Your task to perform on an android device: Open CNN.com Image 0: 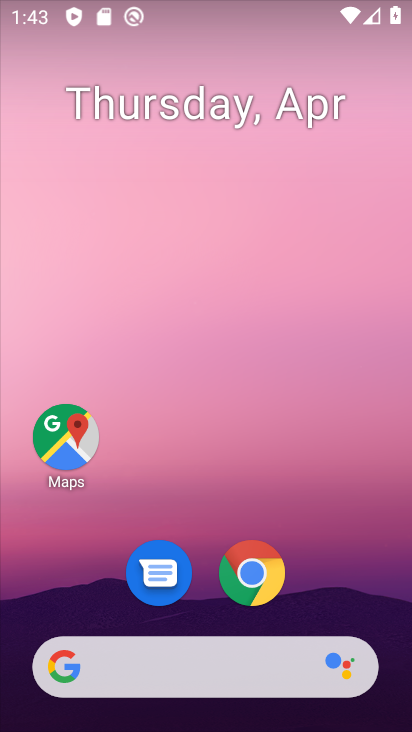
Step 0: drag from (365, 599) to (237, 16)
Your task to perform on an android device: Open CNN.com Image 1: 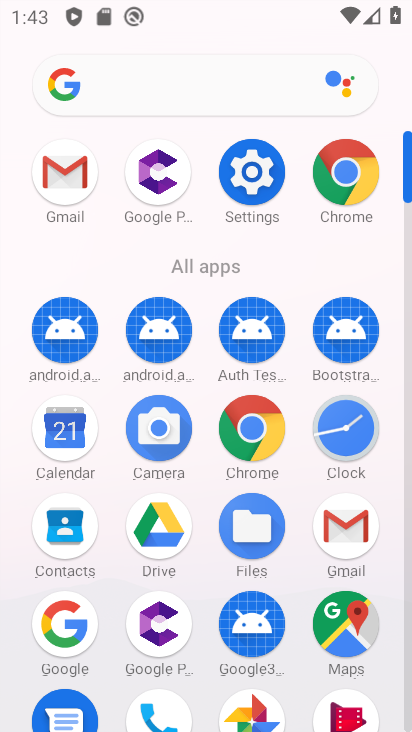
Step 1: click (356, 174)
Your task to perform on an android device: Open CNN.com Image 2: 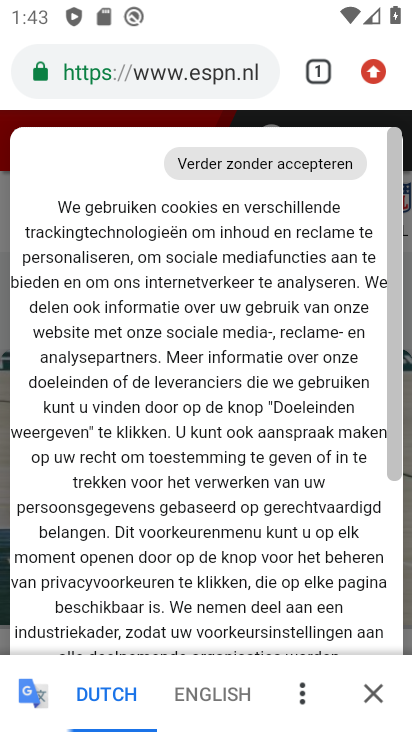
Step 2: press back button
Your task to perform on an android device: Open CNN.com Image 3: 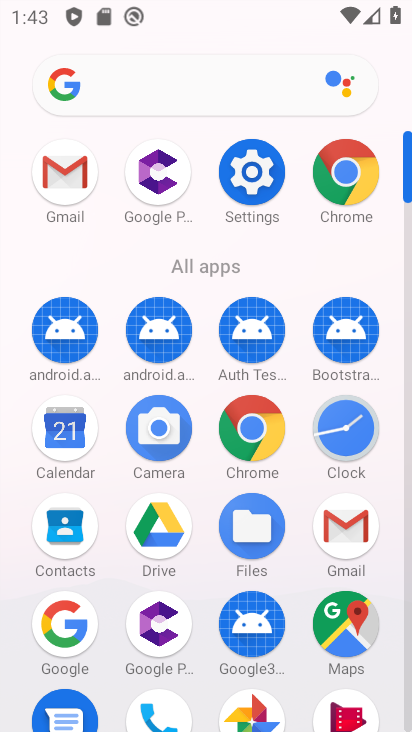
Step 3: click (339, 185)
Your task to perform on an android device: Open CNN.com Image 4: 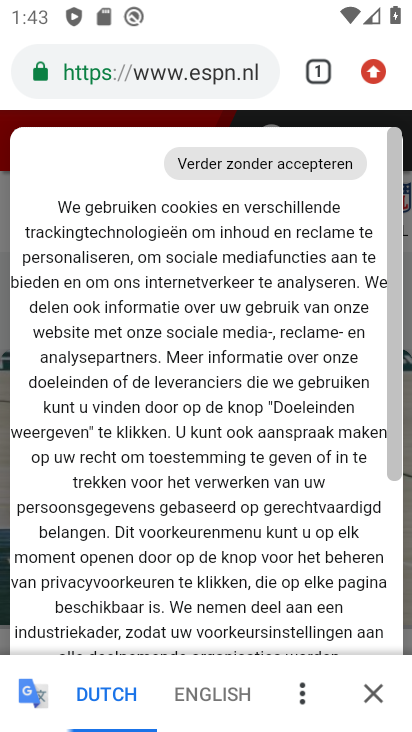
Step 4: press back button
Your task to perform on an android device: Open CNN.com Image 5: 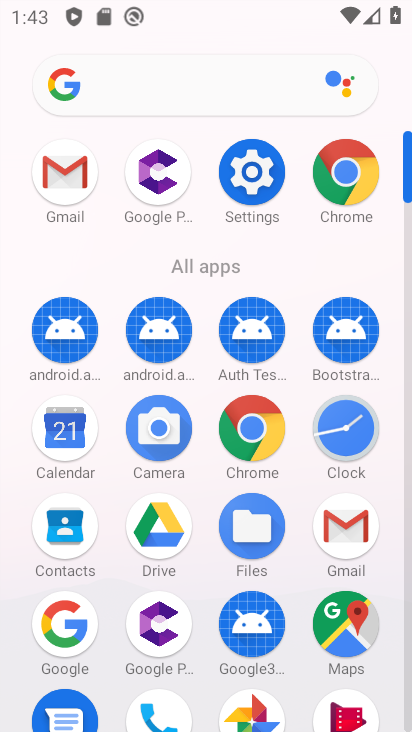
Step 5: click (325, 182)
Your task to perform on an android device: Open CNN.com Image 6: 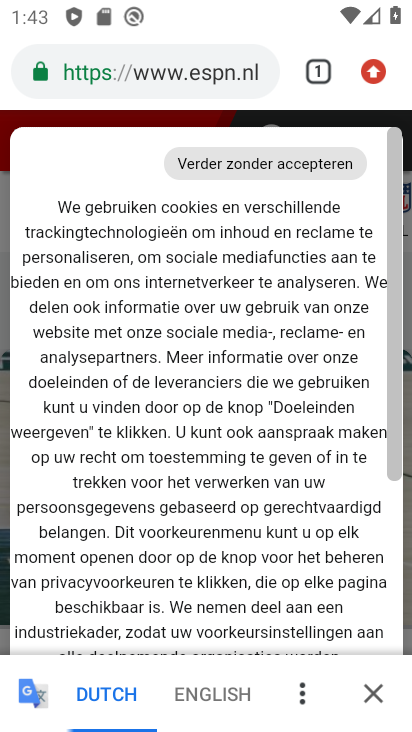
Step 6: click (312, 79)
Your task to perform on an android device: Open CNN.com Image 7: 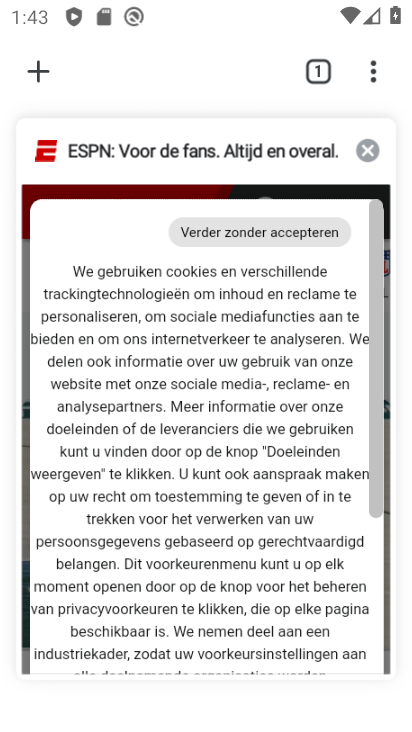
Step 7: click (369, 146)
Your task to perform on an android device: Open CNN.com Image 8: 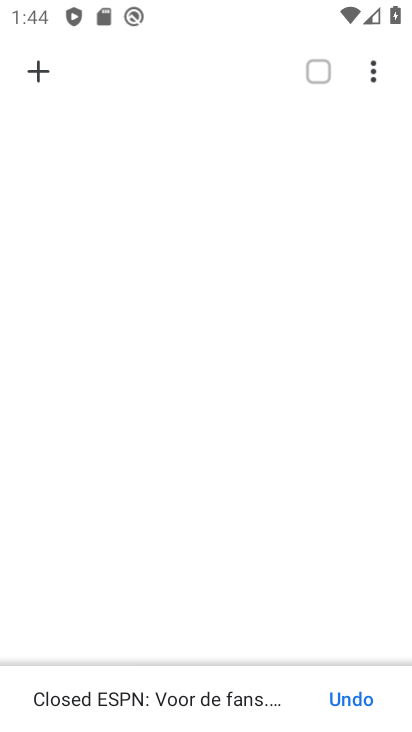
Step 8: click (31, 70)
Your task to perform on an android device: Open CNN.com Image 9: 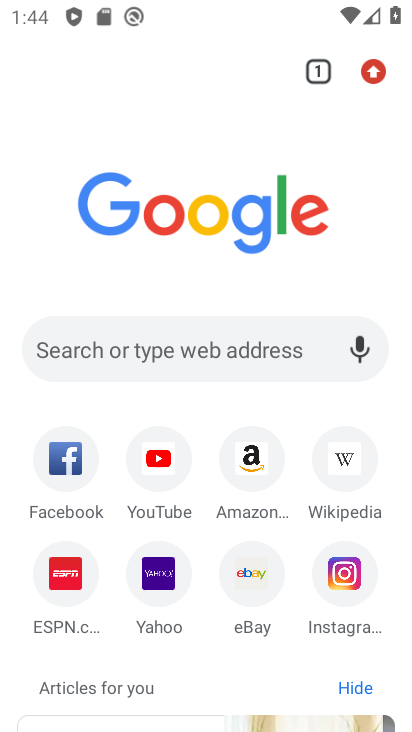
Step 9: task complete